Your task to perform on an android device: Open Google Maps Image 0: 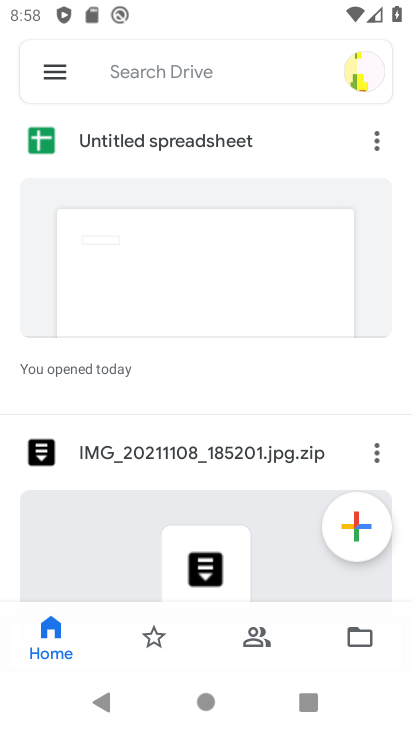
Step 0: press home button
Your task to perform on an android device: Open Google Maps Image 1: 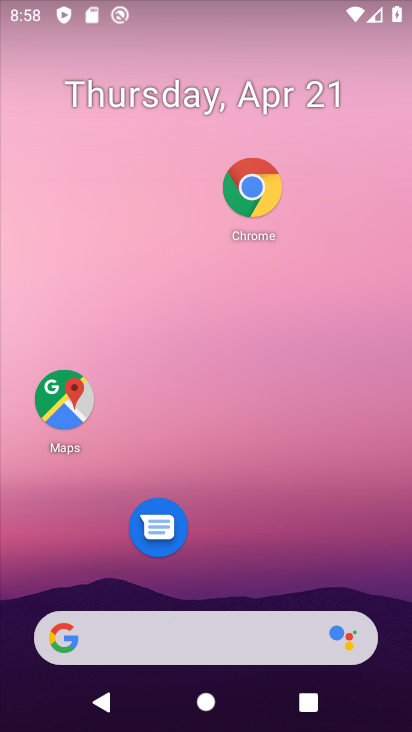
Step 1: click (55, 387)
Your task to perform on an android device: Open Google Maps Image 2: 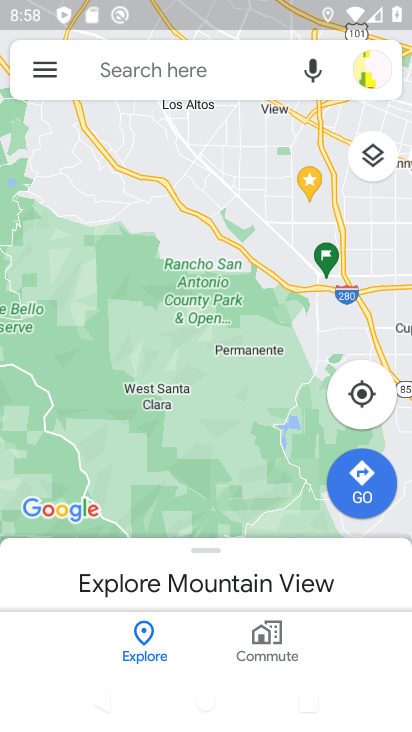
Step 2: task complete